Your task to perform on an android device: Show me productivity apps on the Play Store Image 0: 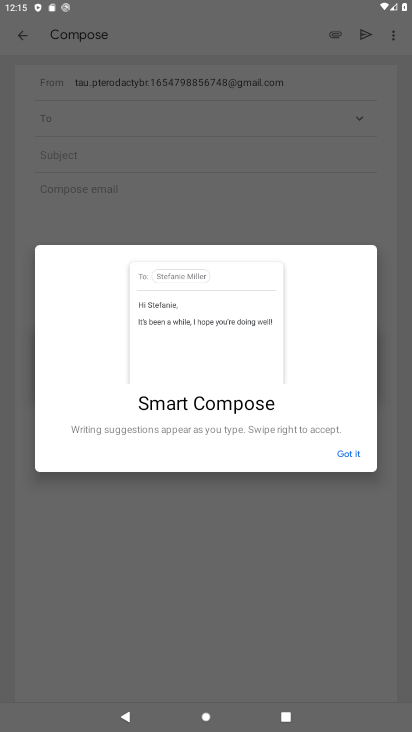
Step 0: press home button
Your task to perform on an android device: Show me productivity apps on the Play Store Image 1: 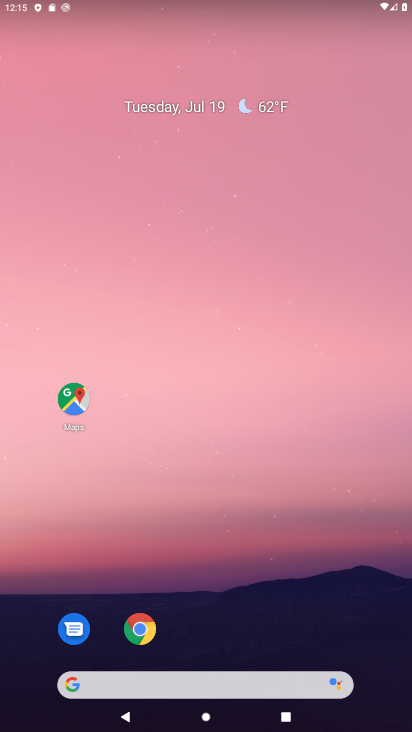
Step 1: drag from (205, 657) to (187, 87)
Your task to perform on an android device: Show me productivity apps on the Play Store Image 2: 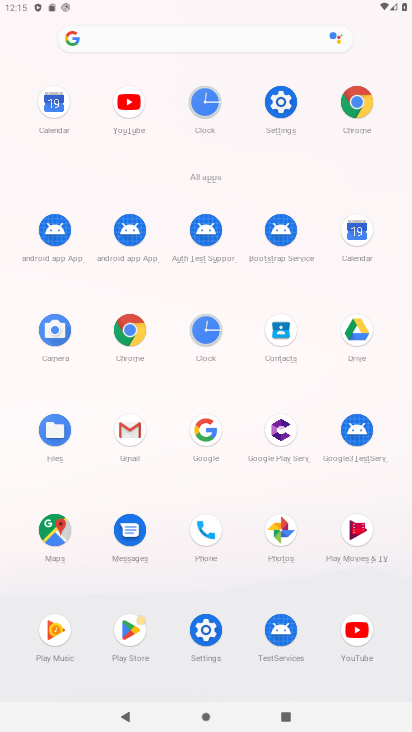
Step 2: click (126, 623)
Your task to perform on an android device: Show me productivity apps on the Play Store Image 3: 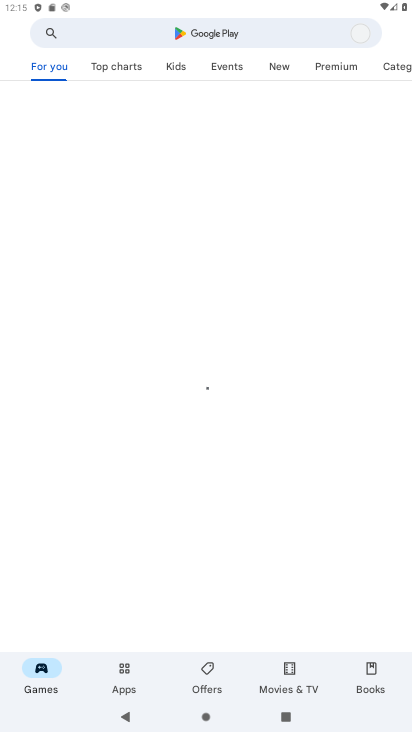
Step 3: click (123, 682)
Your task to perform on an android device: Show me productivity apps on the Play Store Image 4: 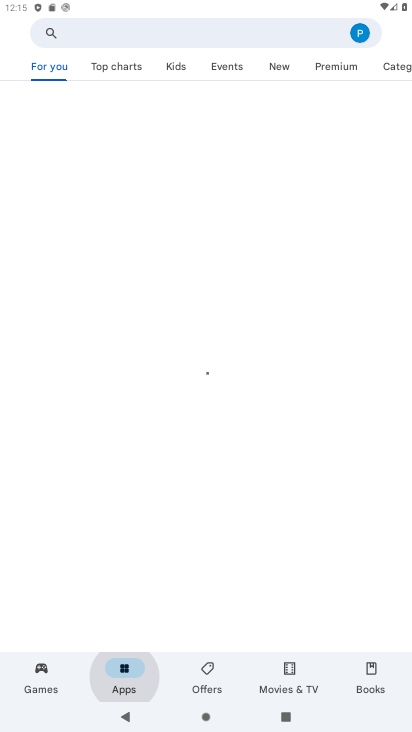
Step 4: click (123, 682)
Your task to perform on an android device: Show me productivity apps on the Play Store Image 5: 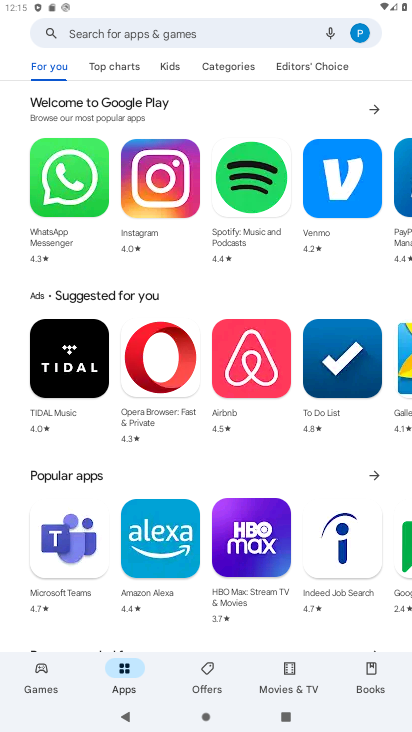
Step 5: click (206, 66)
Your task to perform on an android device: Show me productivity apps on the Play Store Image 6: 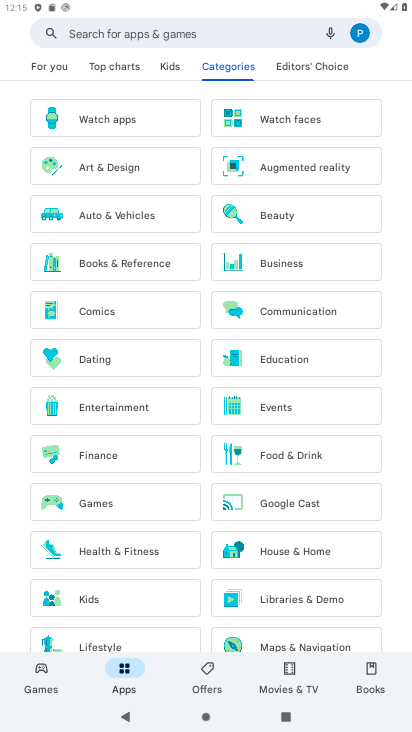
Step 6: drag from (222, 570) to (217, 139)
Your task to perform on an android device: Show me productivity apps on the Play Store Image 7: 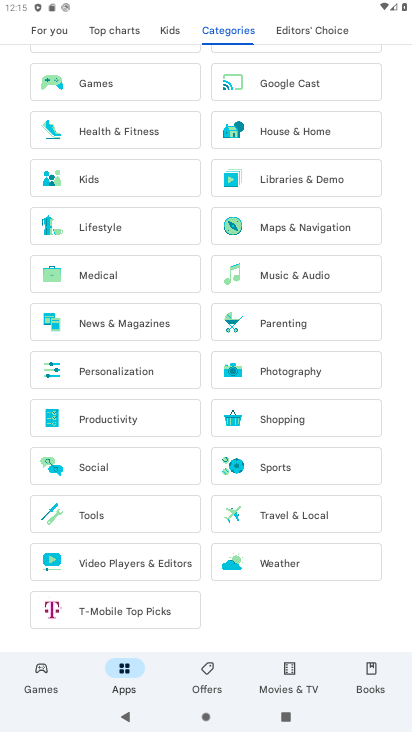
Step 7: click (152, 422)
Your task to perform on an android device: Show me productivity apps on the Play Store Image 8: 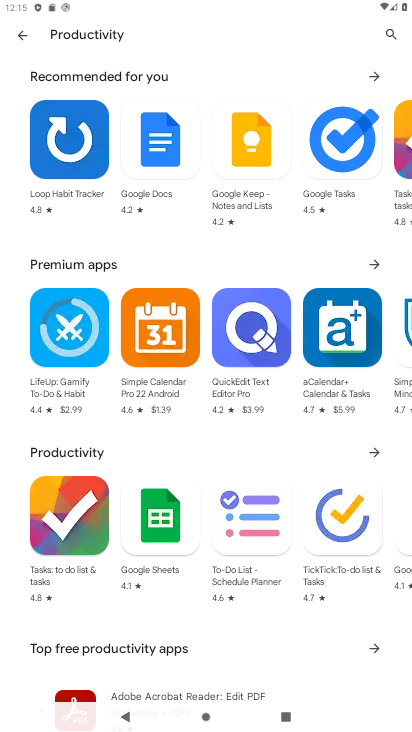
Step 8: task complete